Your task to perform on an android device: Turn on the flashlight Image 0: 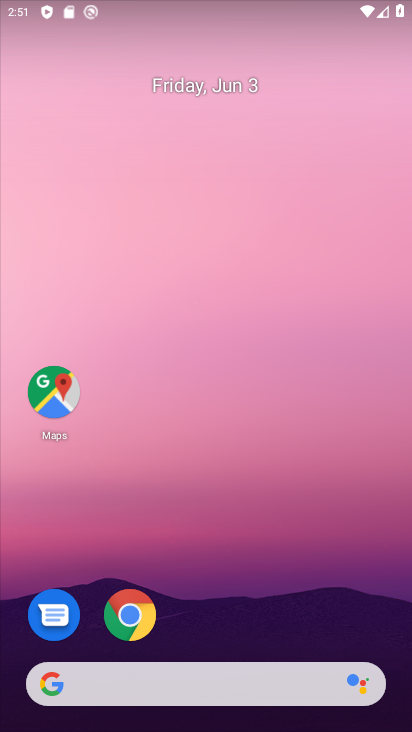
Step 0: drag from (287, 416) to (339, 199)
Your task to perform on an android device: Turn on the flashlight Image 1: 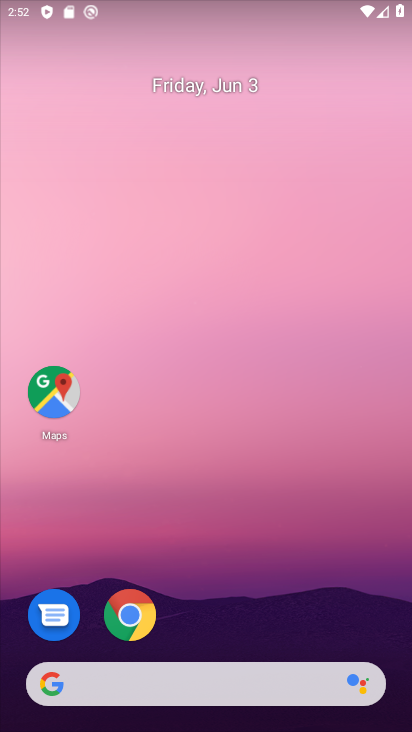
Step 1: drag from (189, 605) to (289, 128)
Your task to perform on an android device: Turn on the flashlight Image 2: 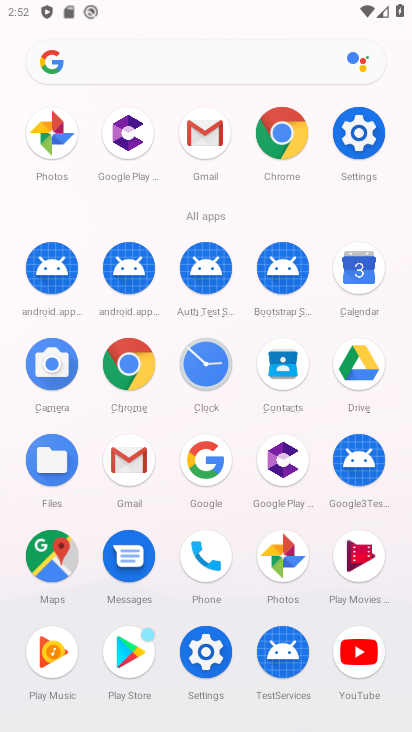
Step 2: click (359, 138)
Your task to perform on an android device: Turn on the flashlight Image 3: 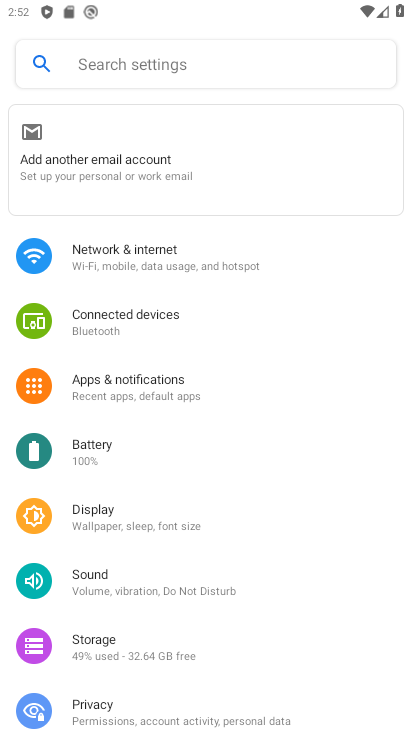
Step 3: click (101, 521)
Your task to perform on an android device: Turn on the flashlight Image 4: 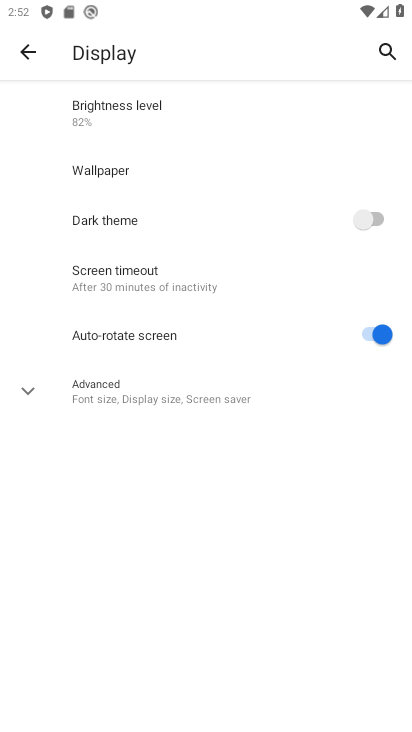
Step 4: task complete